Your task to perform on an android device: Open Android settings Image 0: 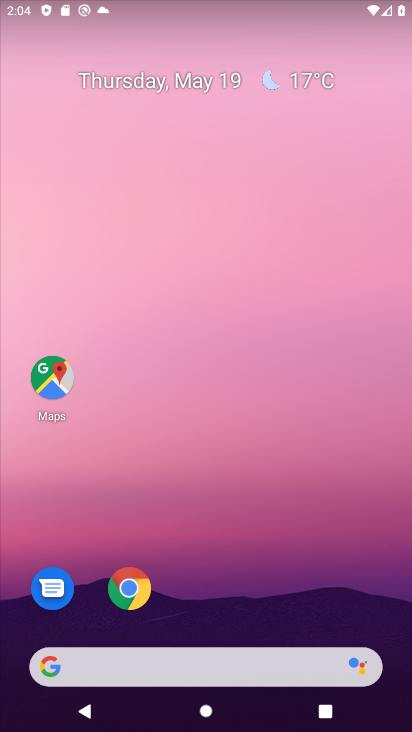
Step 0: drag from (277, 627) to (297, 149)
Your task to perform on an android device: Open Android settings Image 1: 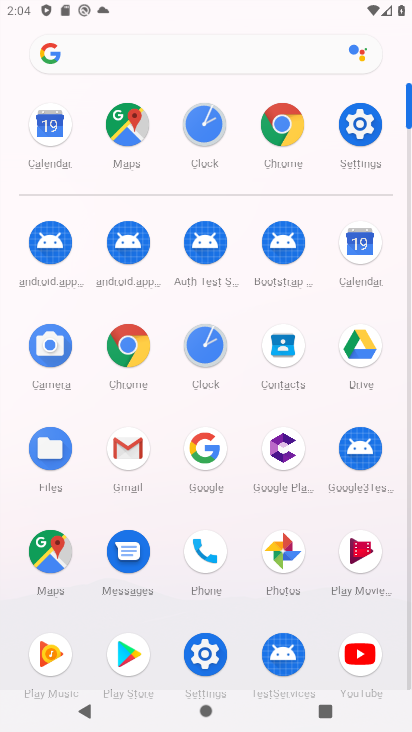
Step 1: click (365, 132)
Your task to perform on an android device: Open Android settings Image 2: 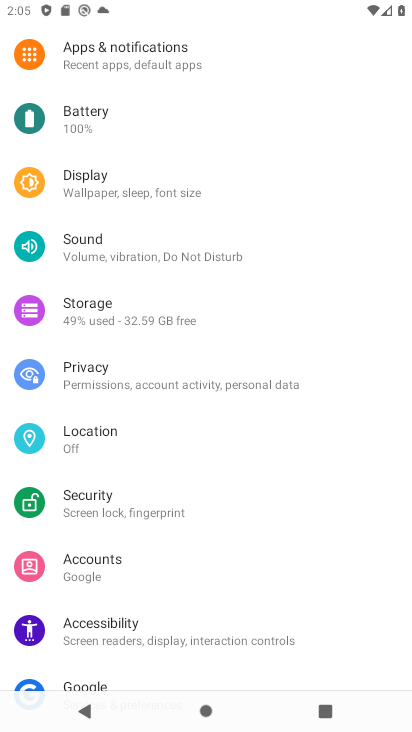
Step 2: task complete